Your task to perform on an android device: Open ESPN.com Image 0: 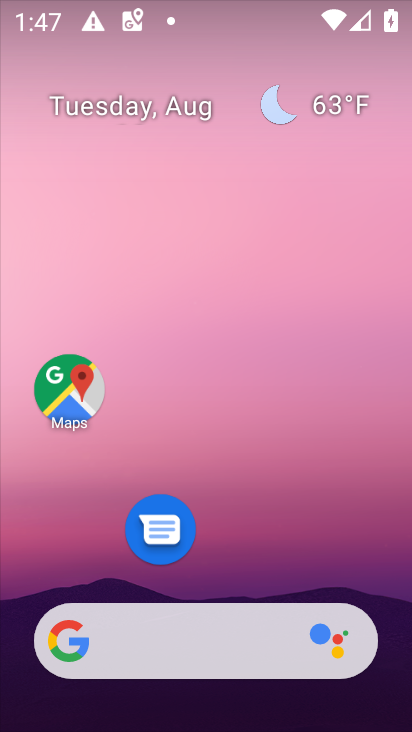
Step 0: drag from (235, 581) to (250, 206)
Your task to perform on an android device: Open ESPN.com Image 1: 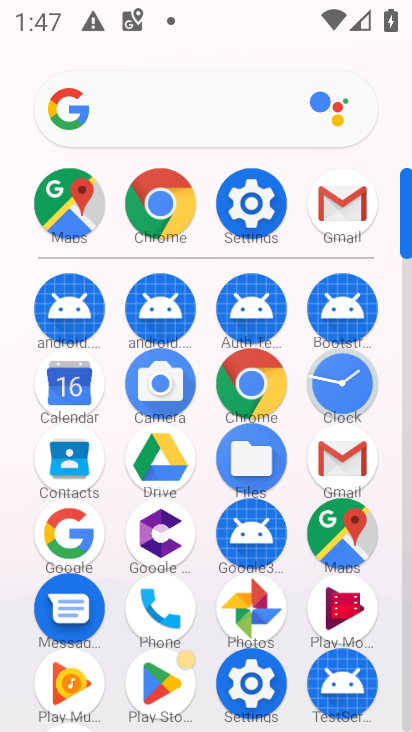
Step 1: click (177, 223)
Your task to perform on an android device: Open ESPN.com Image 2: 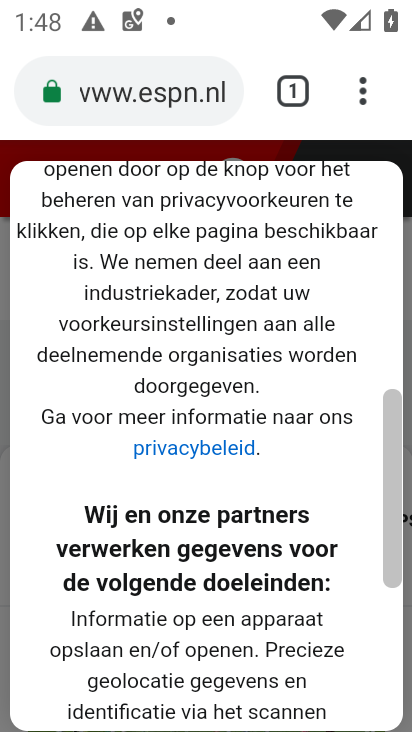
Step 2: task complete